Your task to perform on an android device: turn on bluetooth scan Image 0: 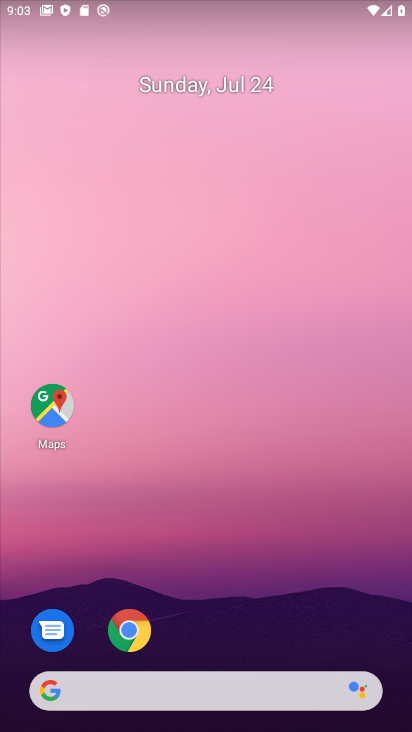
Step 0: drag from (276, 665) to (292, 308)
Your task to perform on an android device: turn on bluetooth scan Image 1: 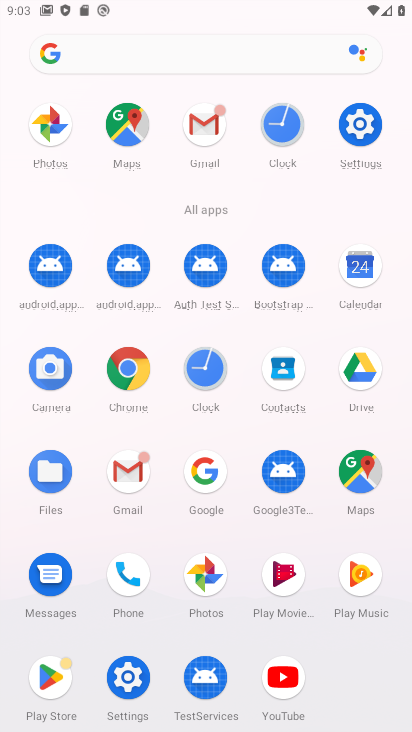
Step 1: click (363, 118)
Your task to perform on an android device: turn on bluetooth scan Image 2: 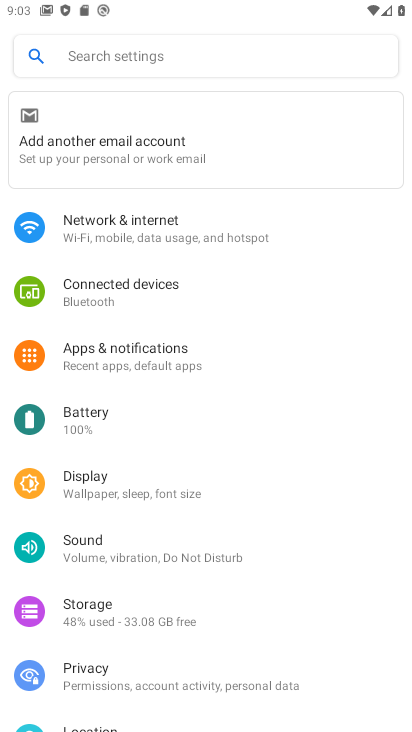
Step 2: click (131, 68)
Your task to perform on an android device: turn on bluetooth scan Image 3: 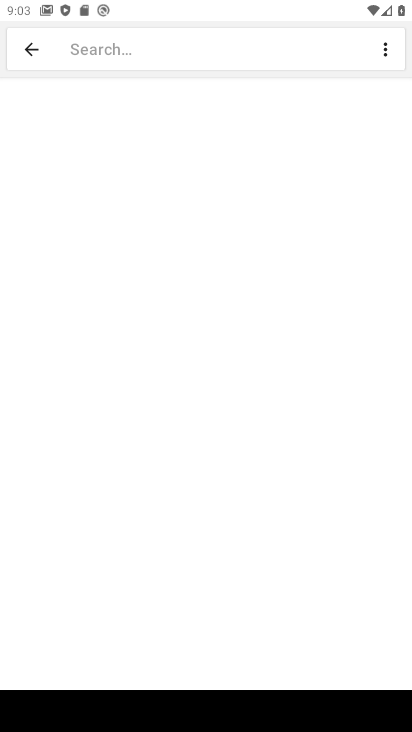
Step 3: type "bluetooth "
Your task to perform on an android device: turn on bluetooth scan Image 4: 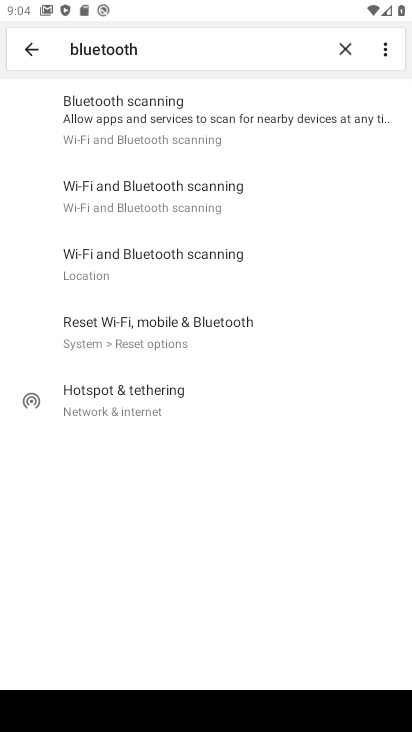
Step 4: click (167, 111)
Your task to perform on an android device: turn on bluetooth scan Image 5: 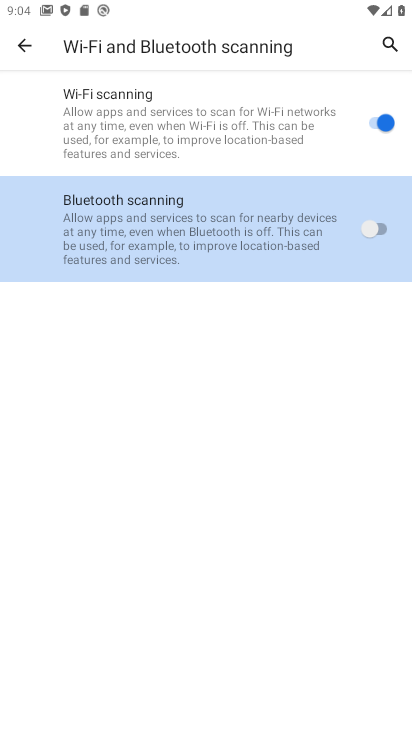
Step 5: click (381, 232)
Your task to perform on an android device: turn on bluetooth scan Image 6: 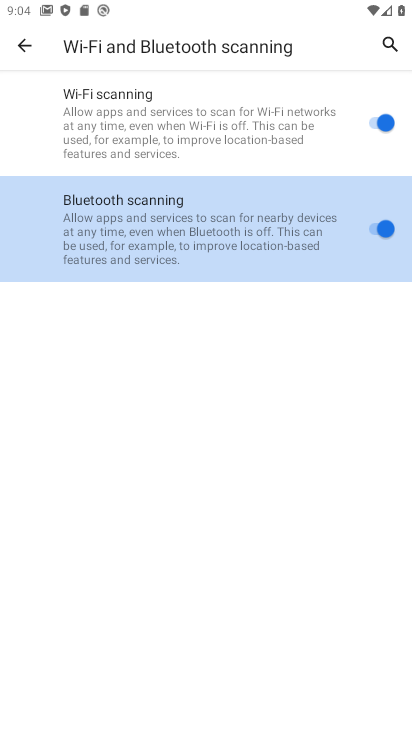
Step 6: task complete